Your task to perform on an android device: add a contact Image 0: 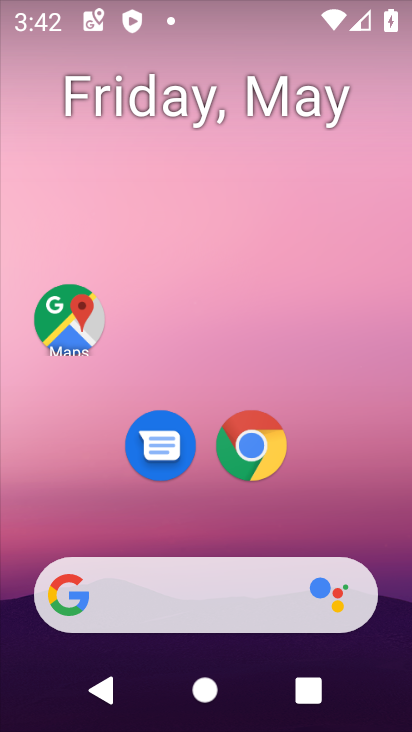
Step 0: drag from (193, 508) to (263, 119)
Your task to perform on an android device: add a contact Image 1: 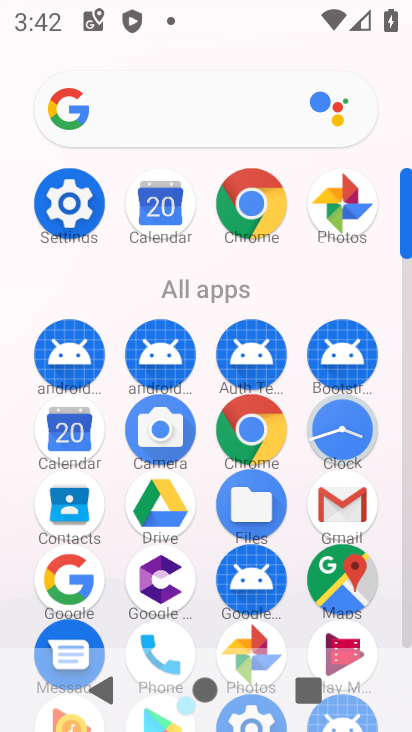
Step 1: click (67, 511)
Your task to perform on an android device: add a contact Image 2: 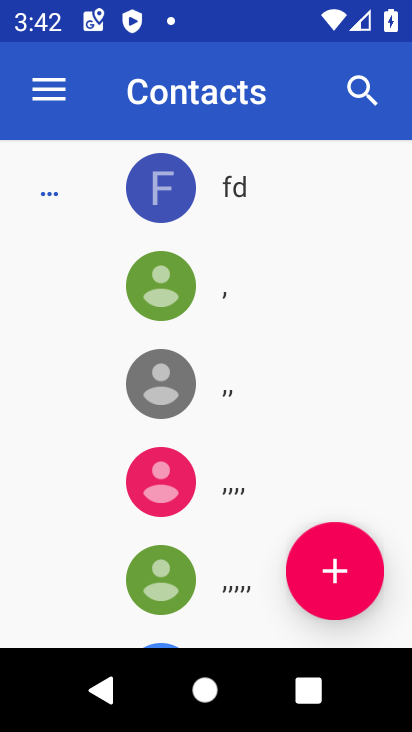
Step 2: click (338, 564)
Your task to perform on an android device: add a contact Image 3: 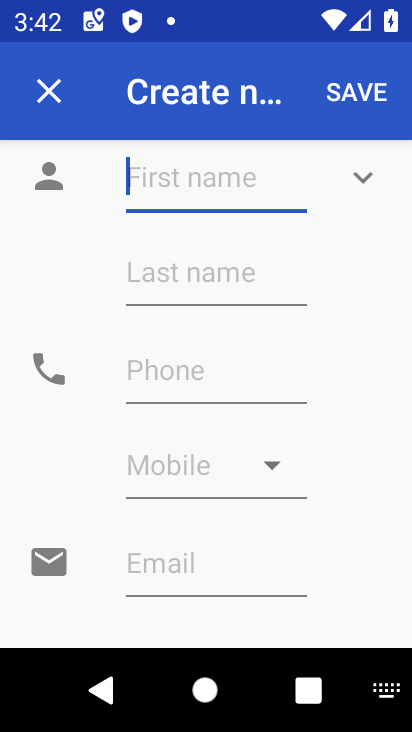
Step 3: type ""
Your task to perform on an android device: add a contact Image 4: 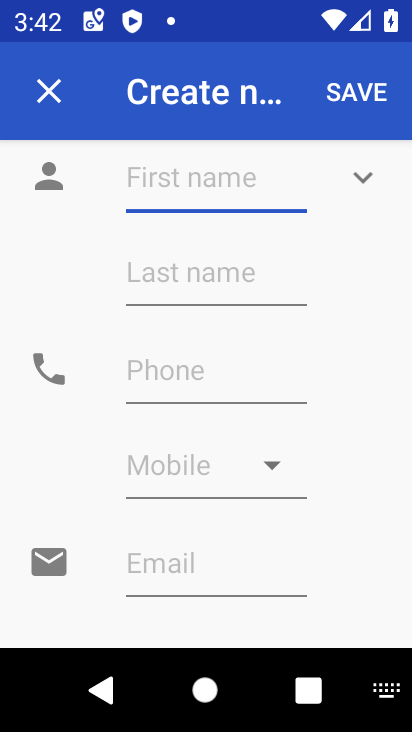
Step 4: type "forbes"
Your task to perform on an android device: add a contact Image 5: 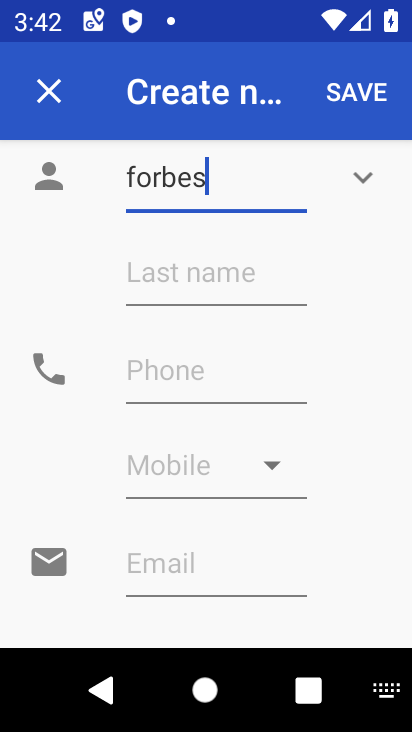
Step 5: click (372, 91)
Your task to perform on an android device: add a contact Image 6: 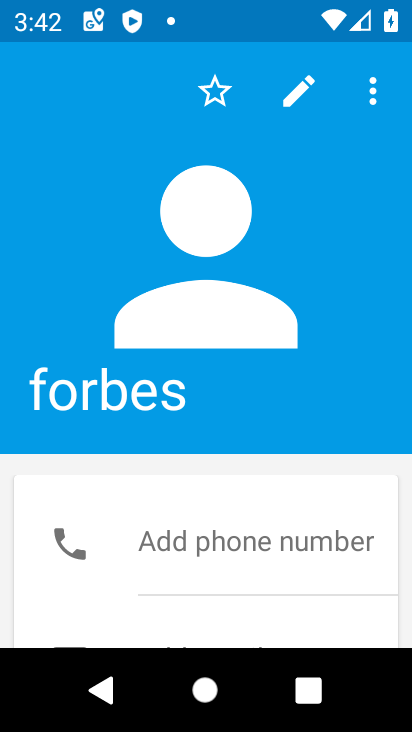
Step 6: task complete